Your task to perform on an android device: set the stopwatch Image 0: 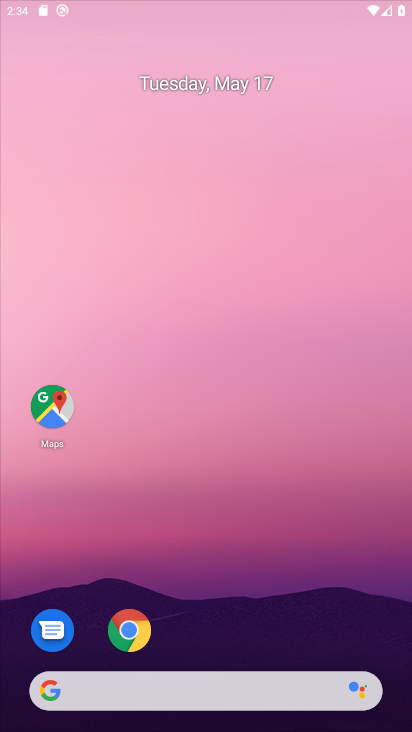
Step 0: drag from (228, 655) to (253, 203)
Your task to perform on an android device: set the stopwatch Image 1: 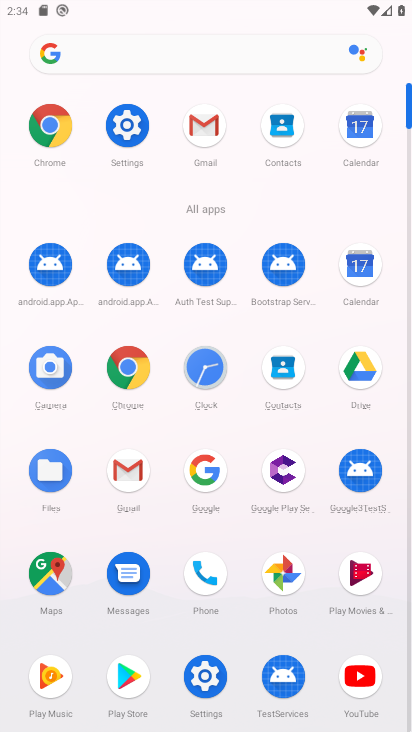
Step 1: click (210, 369)
Your task to perform on an android device: set the stopwatch Image 2: 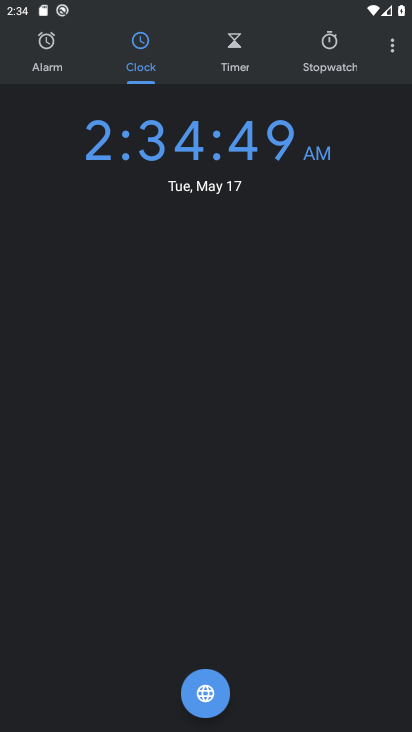
Step 2: click (393, 45)
Your task to perform on an android device: set the stopwatch Image 3: 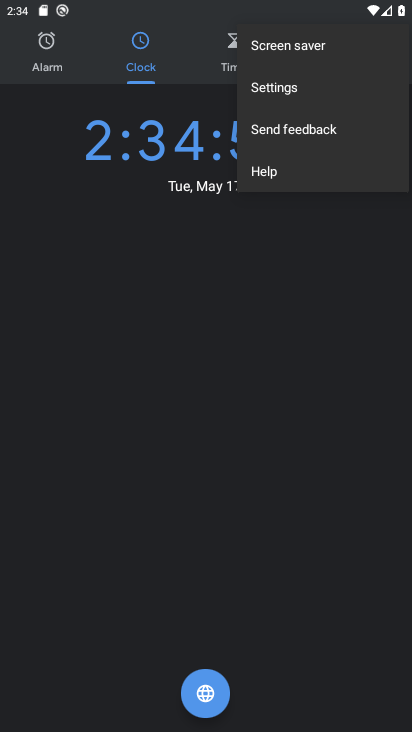
Step 3: click (231, 51)
Your task to perform on an android device: set the stopwatch Image 4: 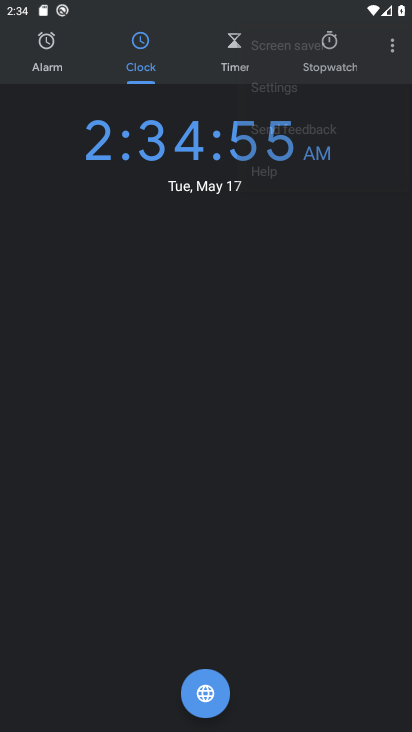
Step 4: click (230, 308)
Your task to perform on an android device: set the stopwatch Image 5: 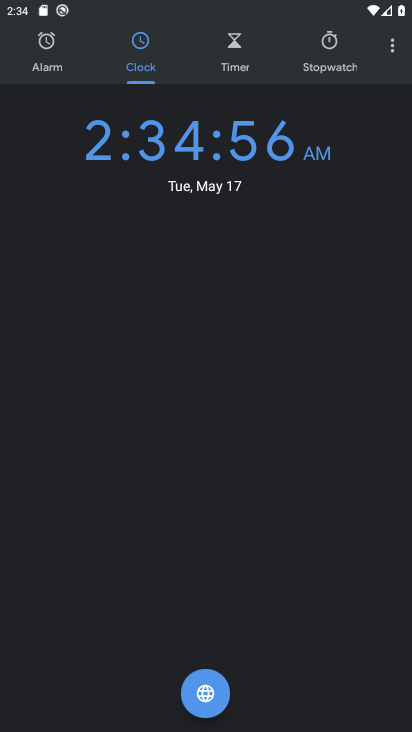
Step 5: click (320, 52)
Your task to perform on an android device: set the stopwatch Image 6: 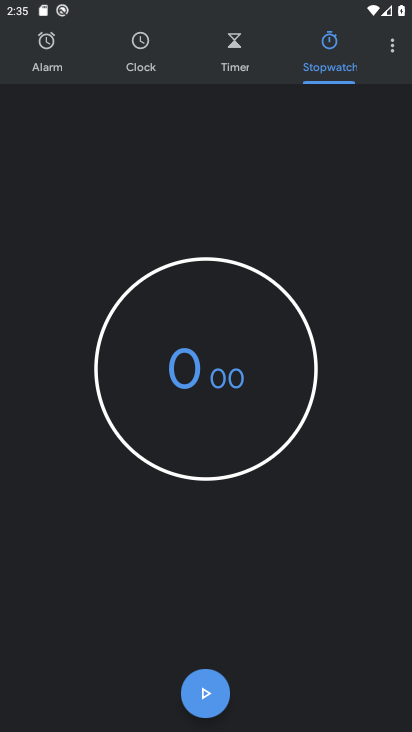
Step 6: click (191, 691)
Your task to perform on an android device: set the stopwatch Image 7: 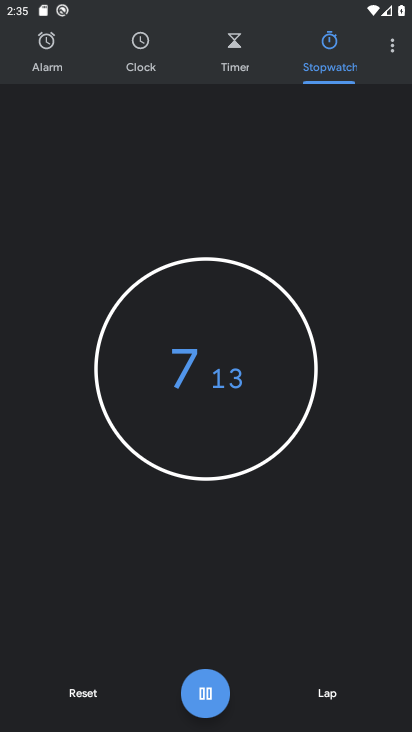
Step 7: task complete